Your task to perform on an android device: Open Yahoo.com Image 0: 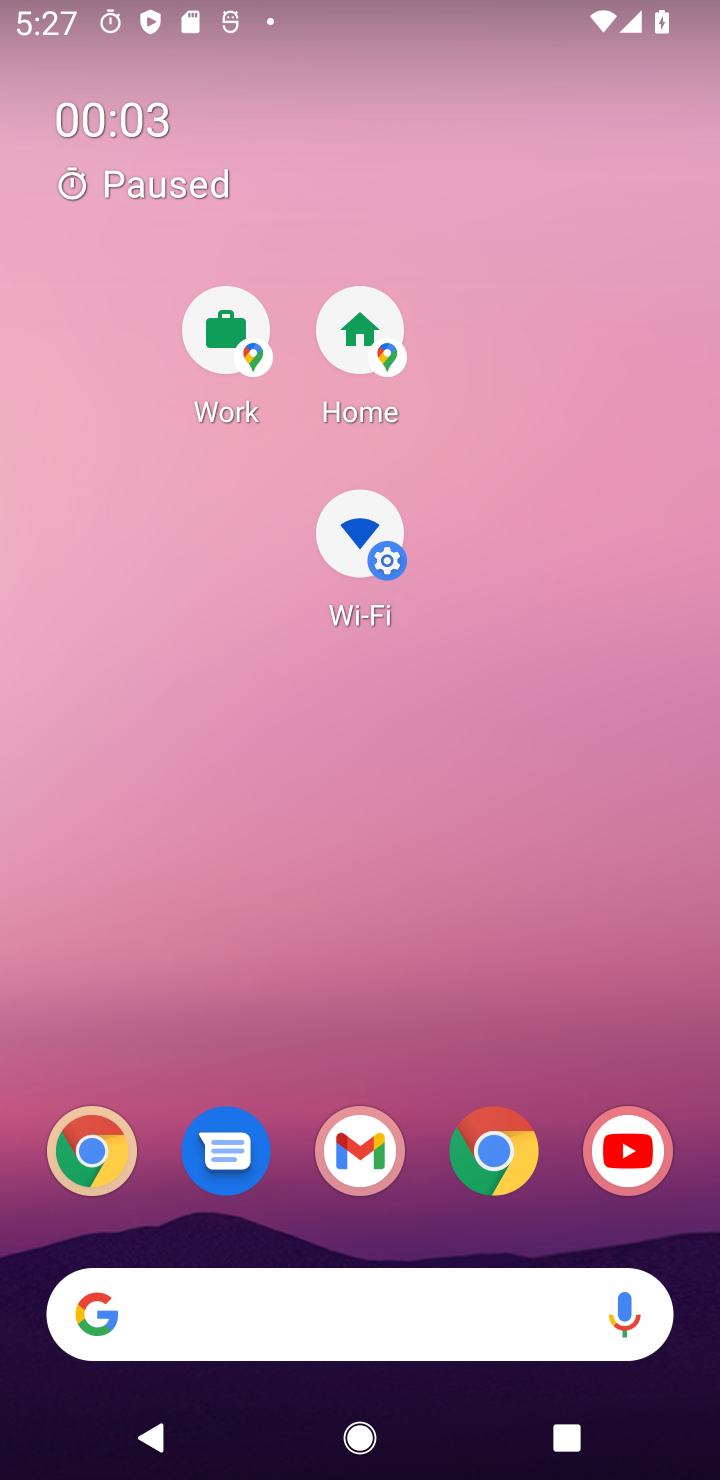
Step 0: drag from (444, 1236) to (334, 396)
Your task to perform on an android device: Open Yahoo.com Image 1: 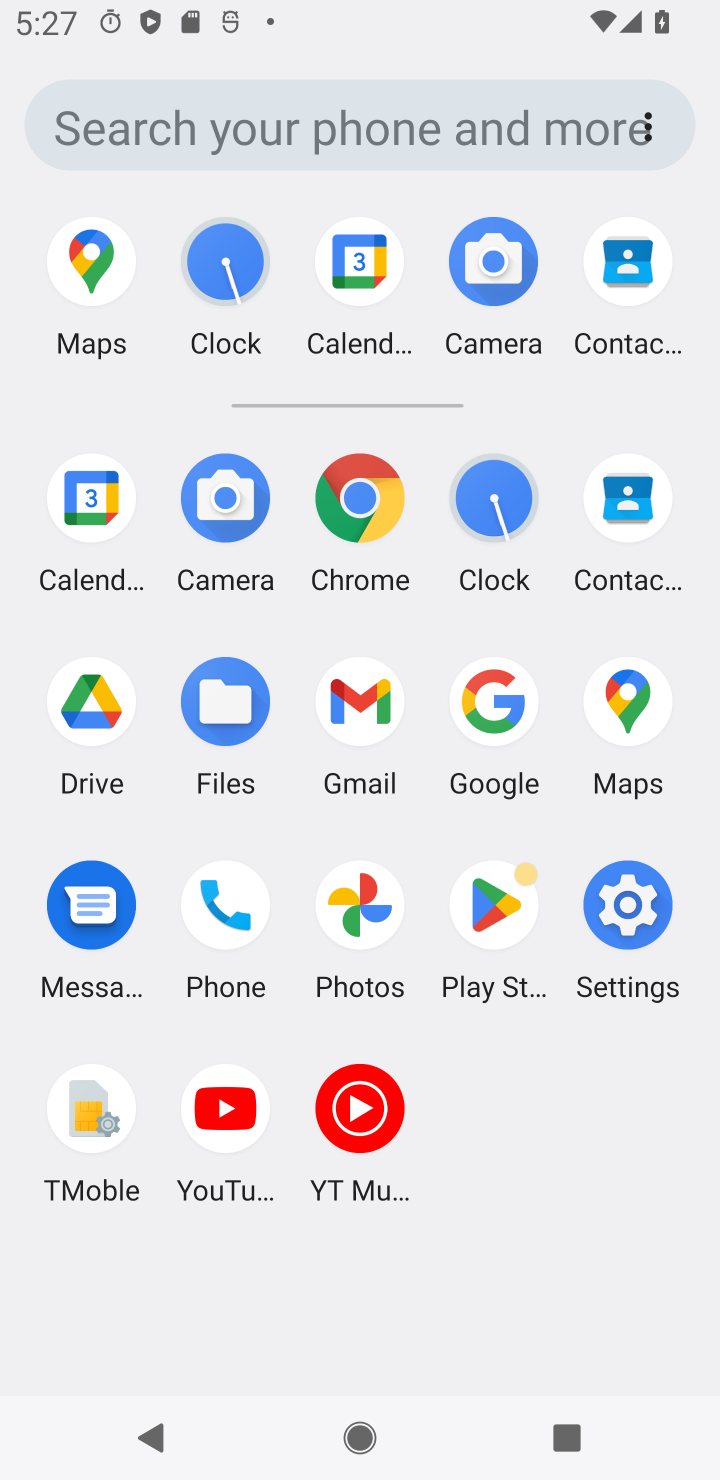
Step 1: drag from (215, 860) to (183, 639)
Your task to perform on an android device: Open Yahoo.com Image 2: 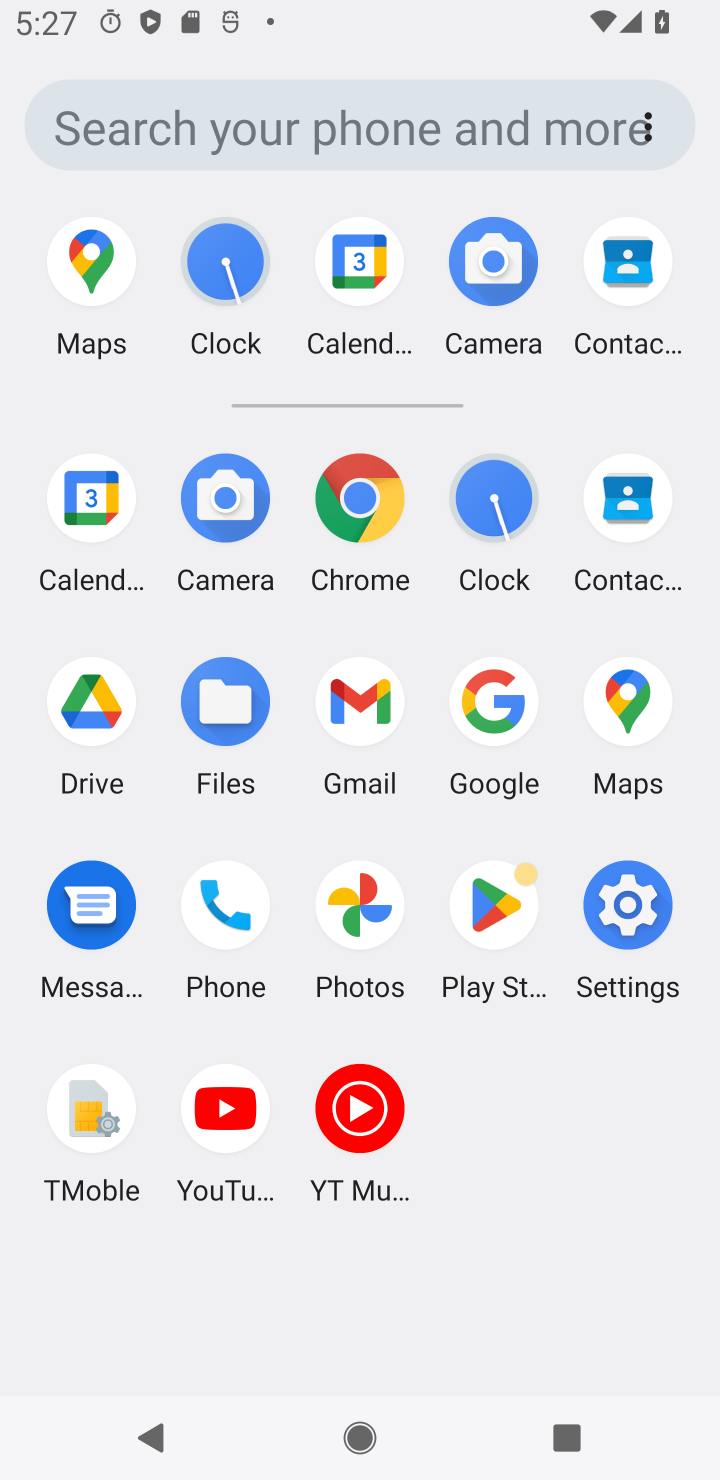
Step 2: click (355, 457)
Your task to perform on an android device: Open Yahoo.com Image 3: 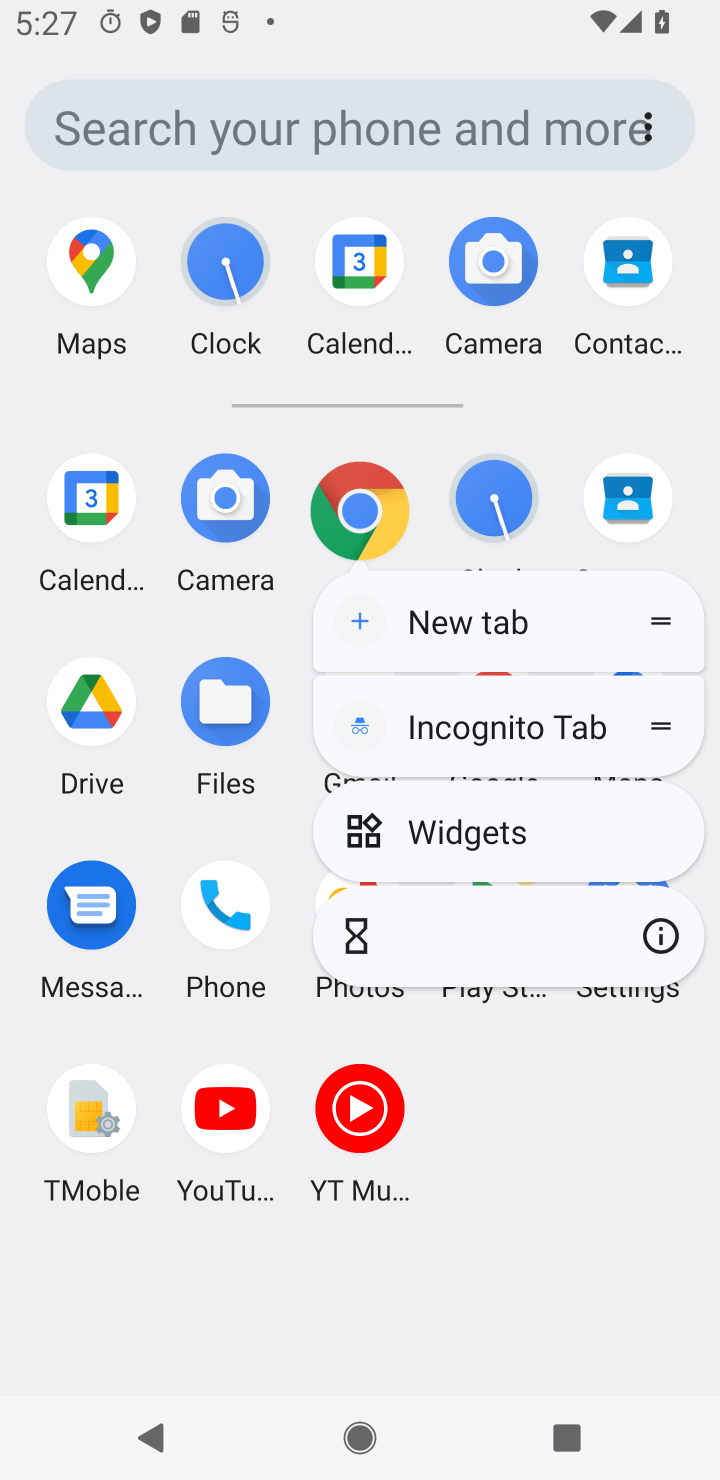
Step 3: click (374, 501)
Your task to perform on an android device: Open Yahoo.com Image 4: 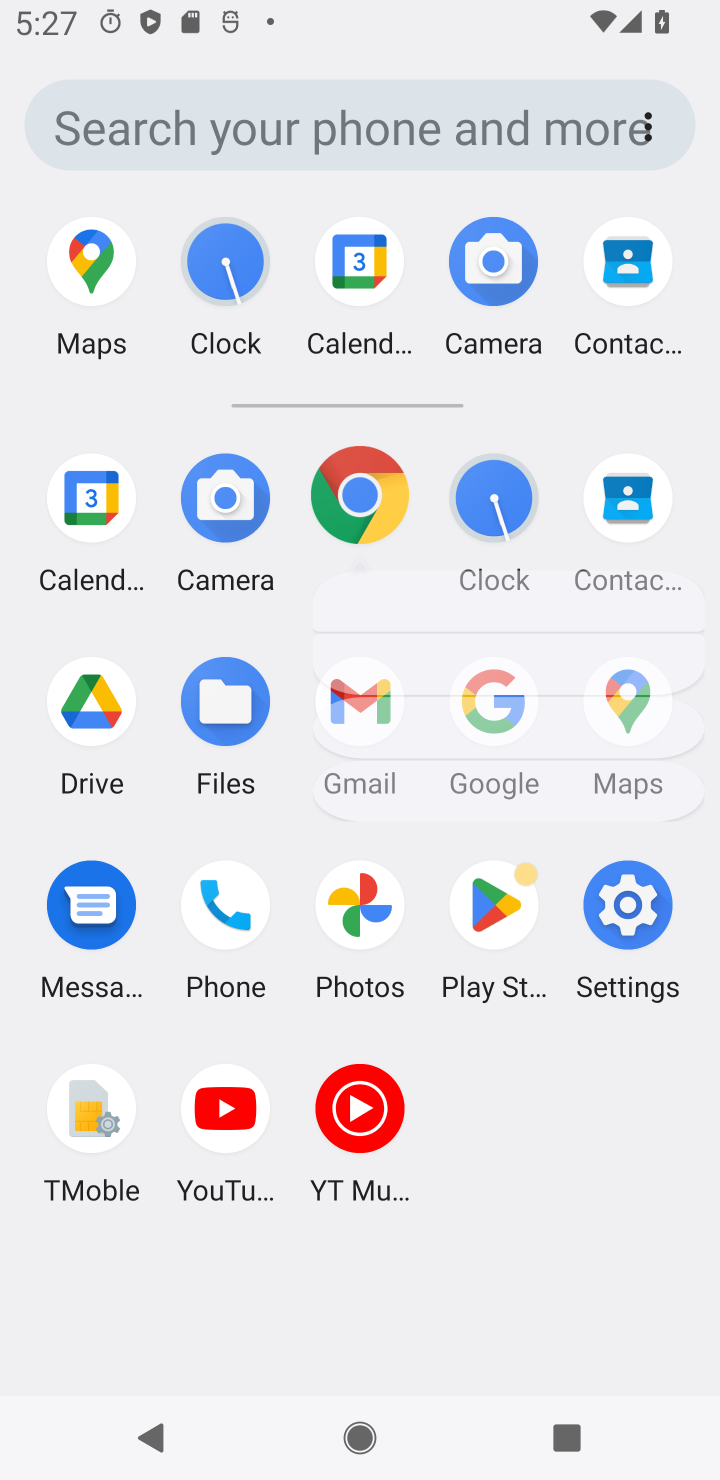
Step 4: click (376, 486)
Your task to perform on an android device: Open Yahoo.com Image 5: 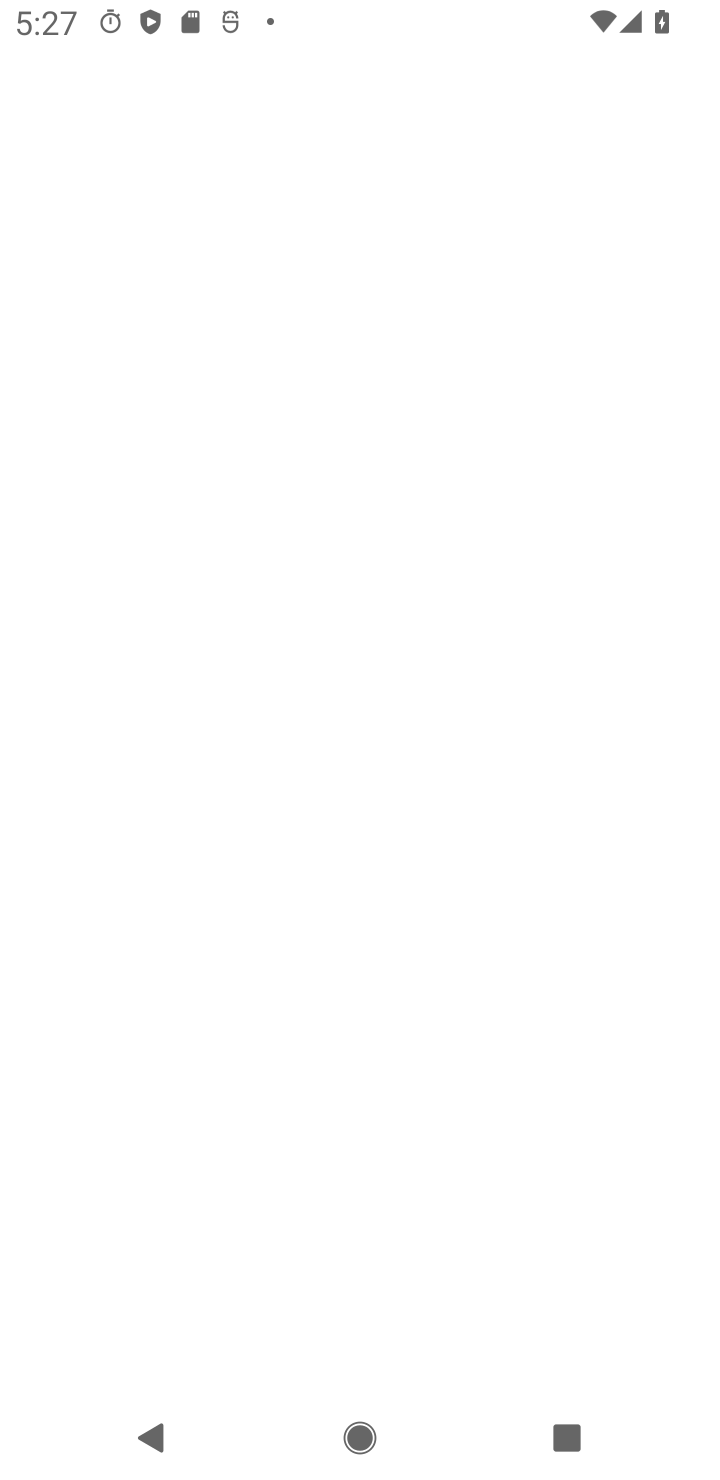
Step 5: click (363, 495)
Your task to perform on an android device: Open Yahoo.com Image 6: 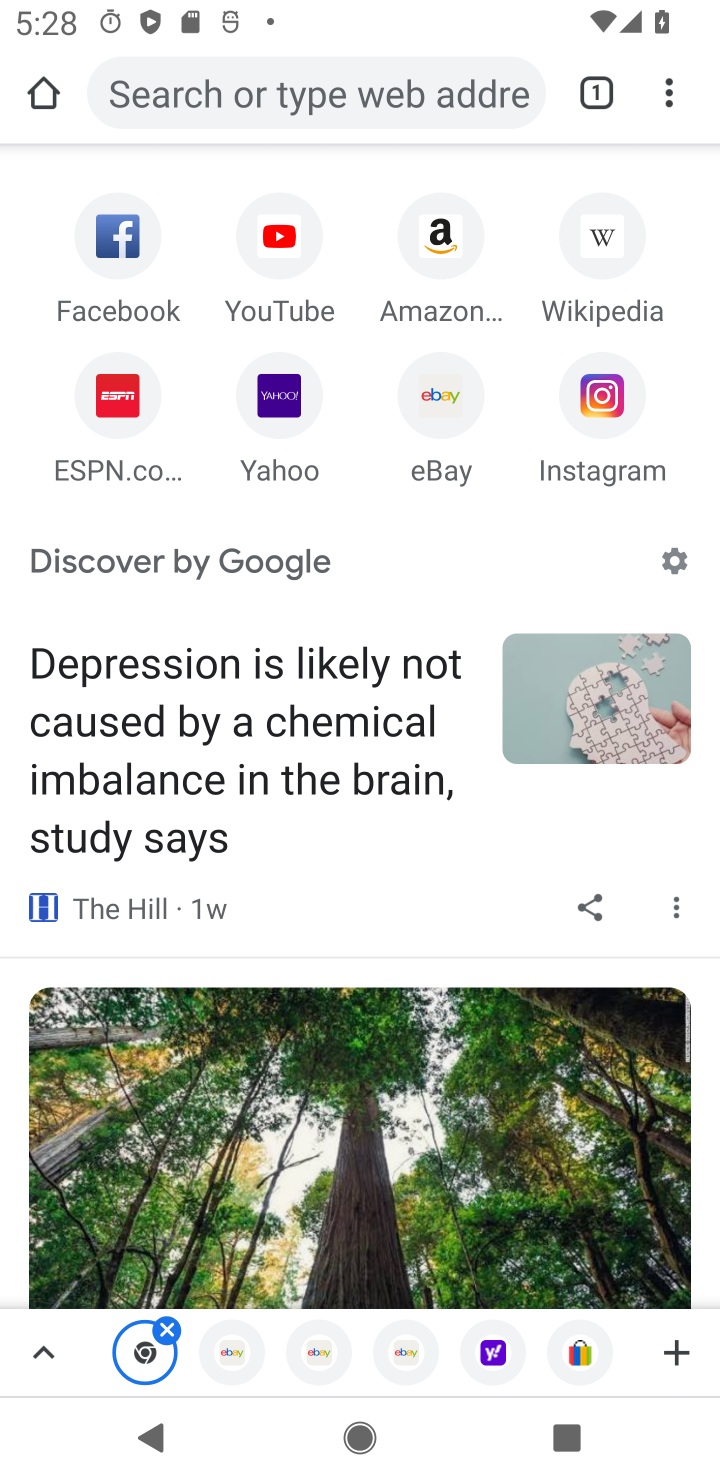
Step 6: click (282, 388)
Your task to perform on an android device: Open Yahoo.com Image 7: 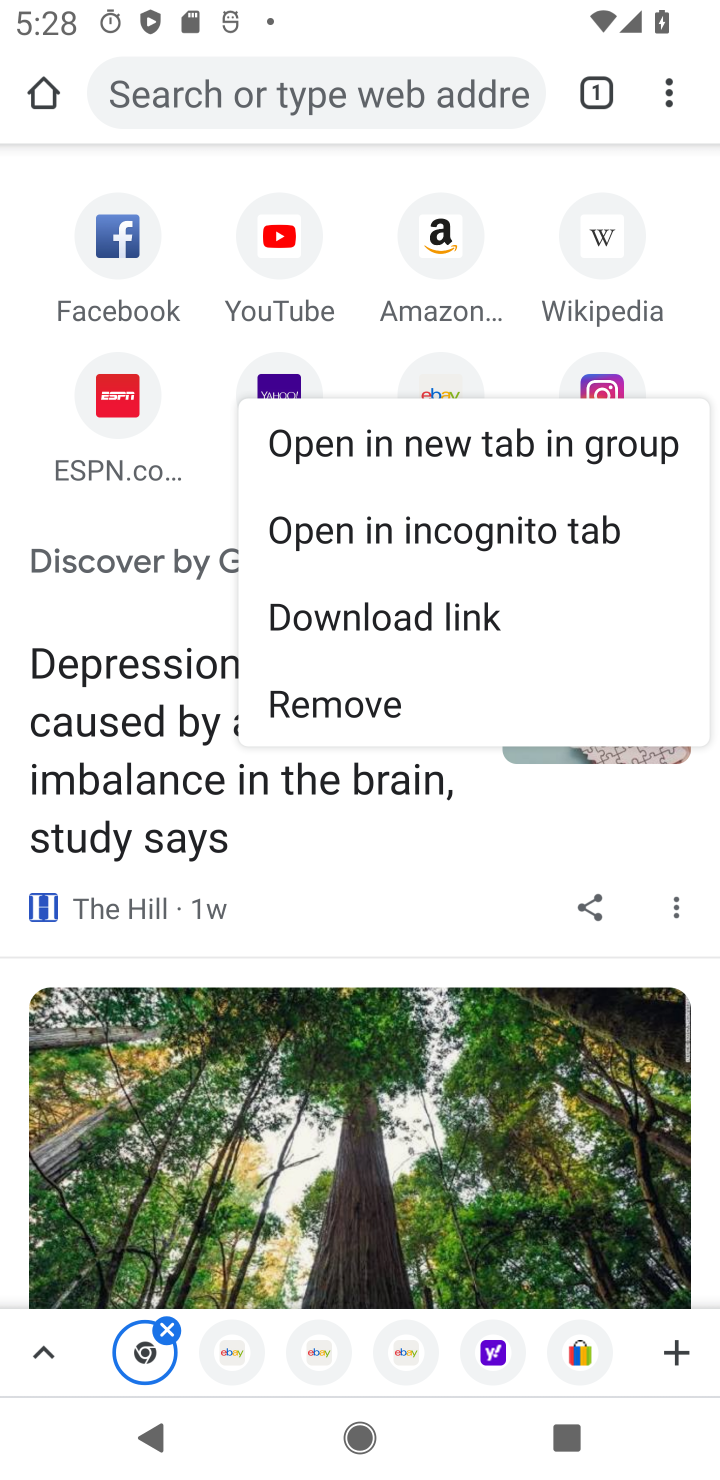
Step 7: click (361, 437)
Your task to perform on an android device: Open Yahoo.com Image 8: 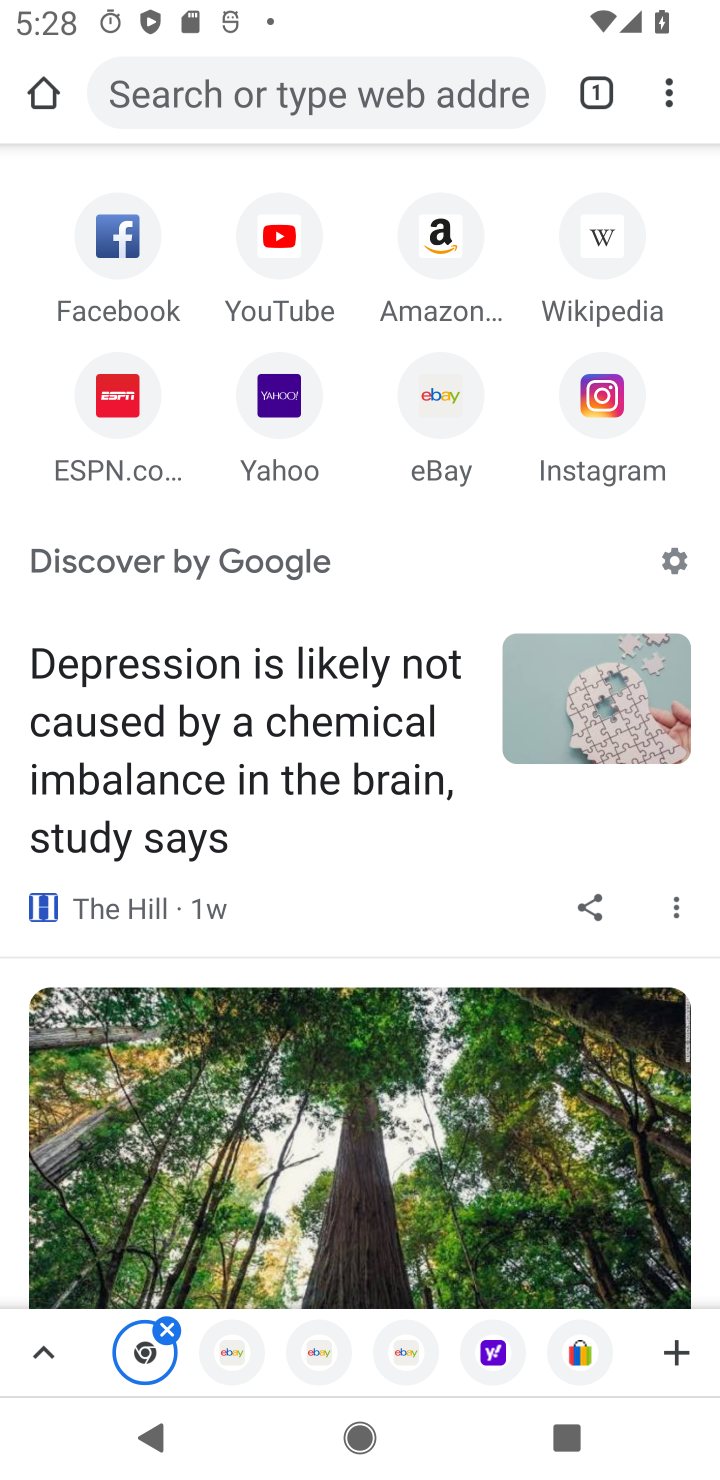
Step 8: click (114, 223)
Your task to perform on an android device: Open Yahoo.com Image 9: 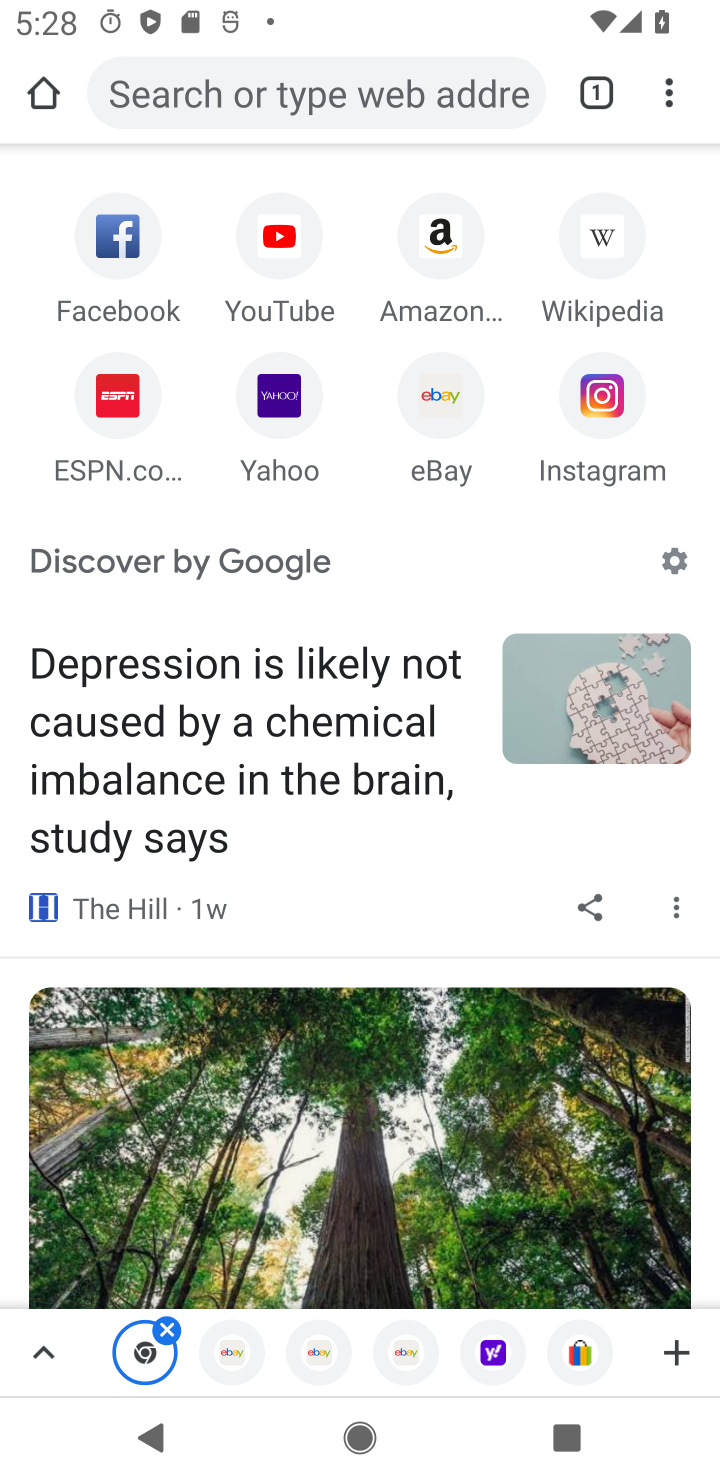
Step 9: click (113, 223)
Your task to perform on an android device: Open Yahoo.com Image 10: 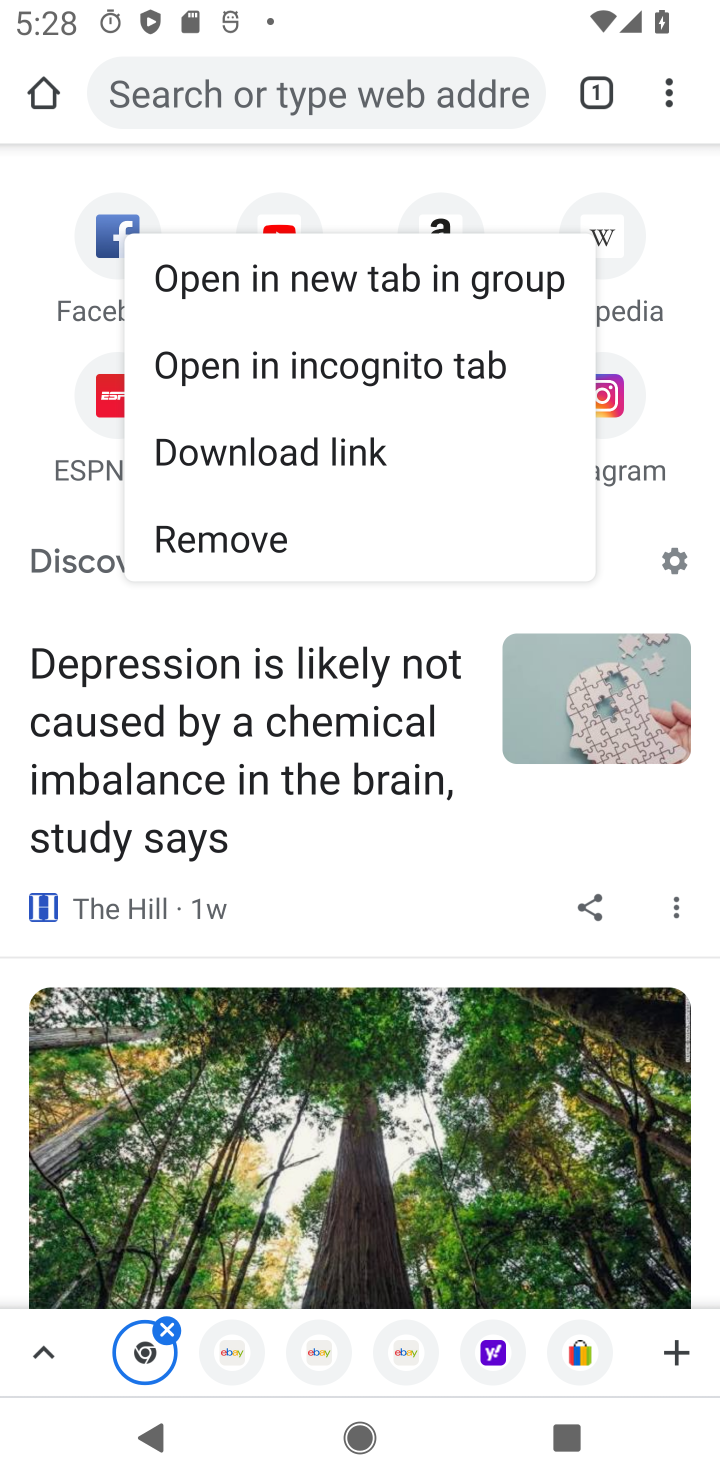
Step 10: click (109, 220)
Your task to perform on an android device: Open Yahoo.com Image 11: 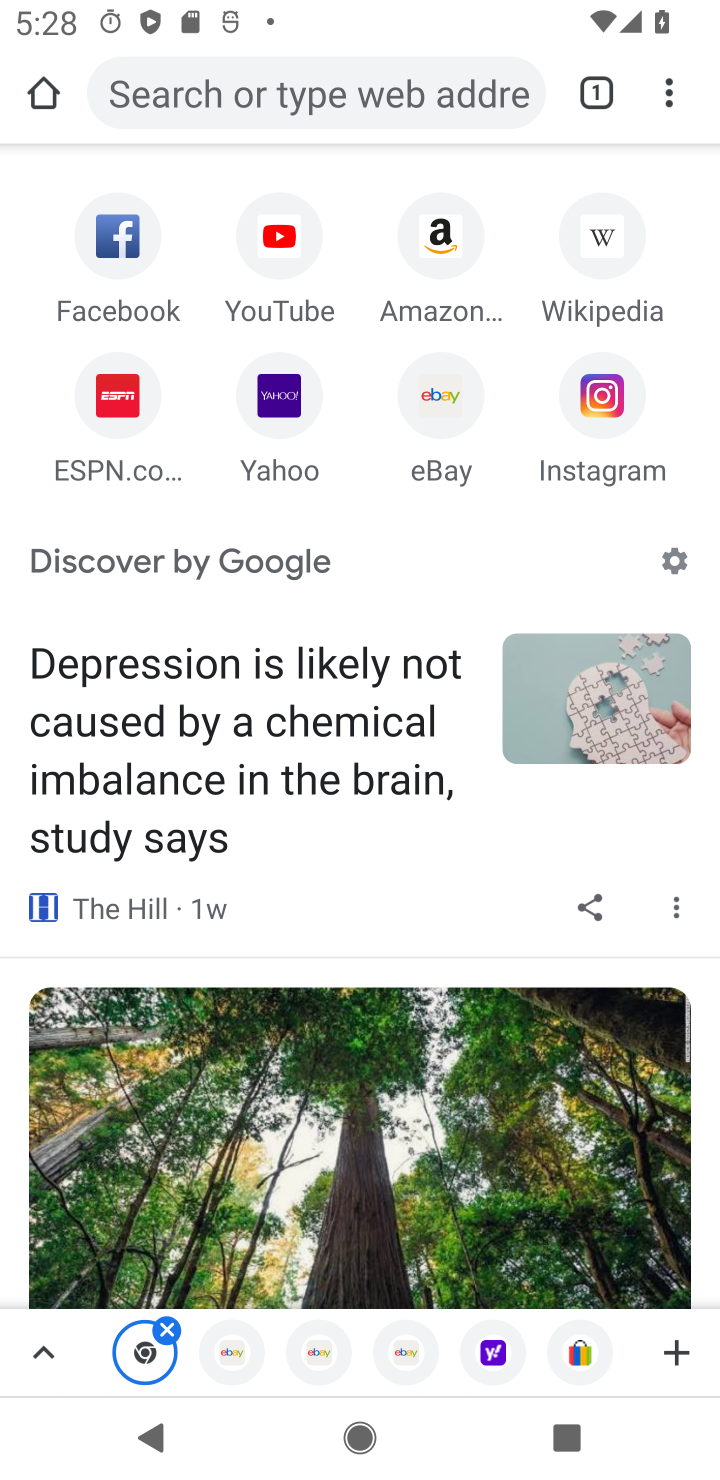
Step 11: click (109, 220)
Your task to perform on an android device: Open Yahoo.com Image 12: 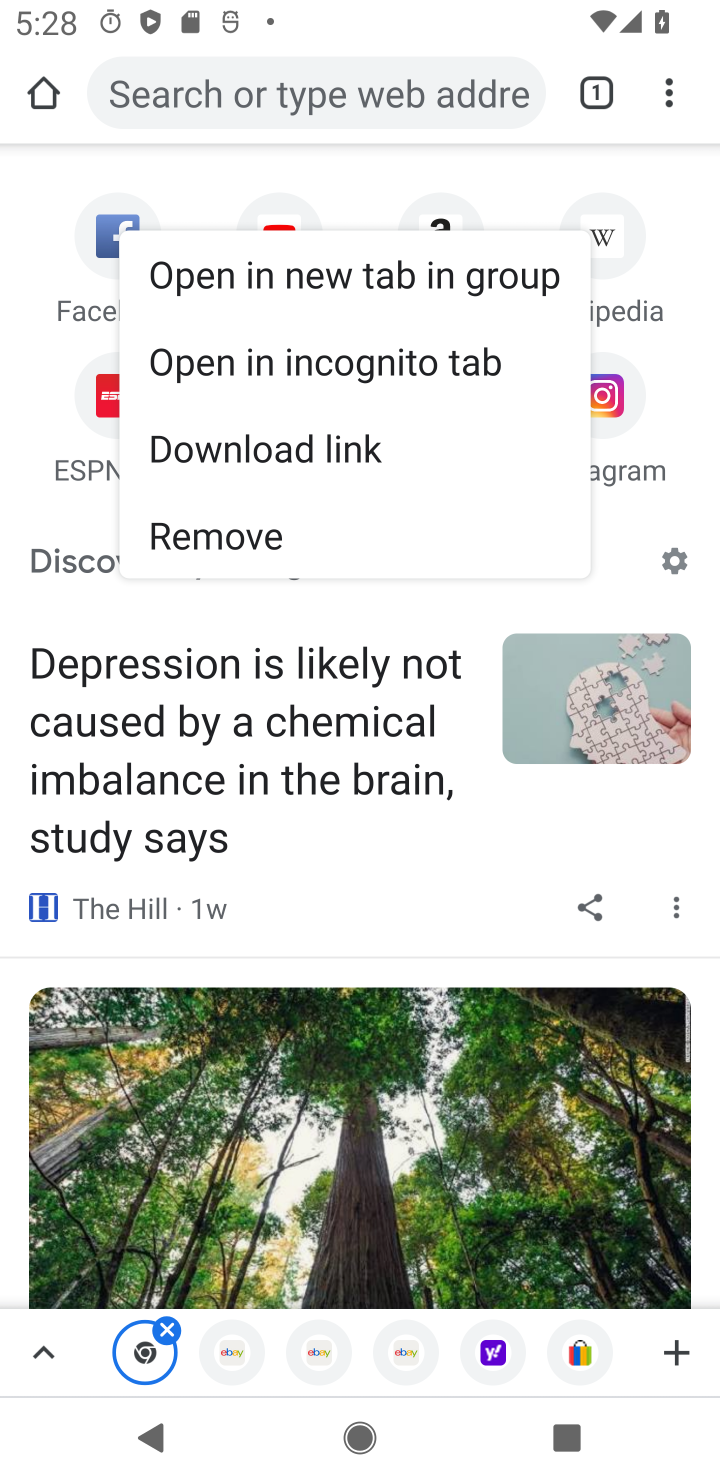
Step 12: click (102, 261)
Your task to perform on an android device: Open Yahoo.com Image 13: 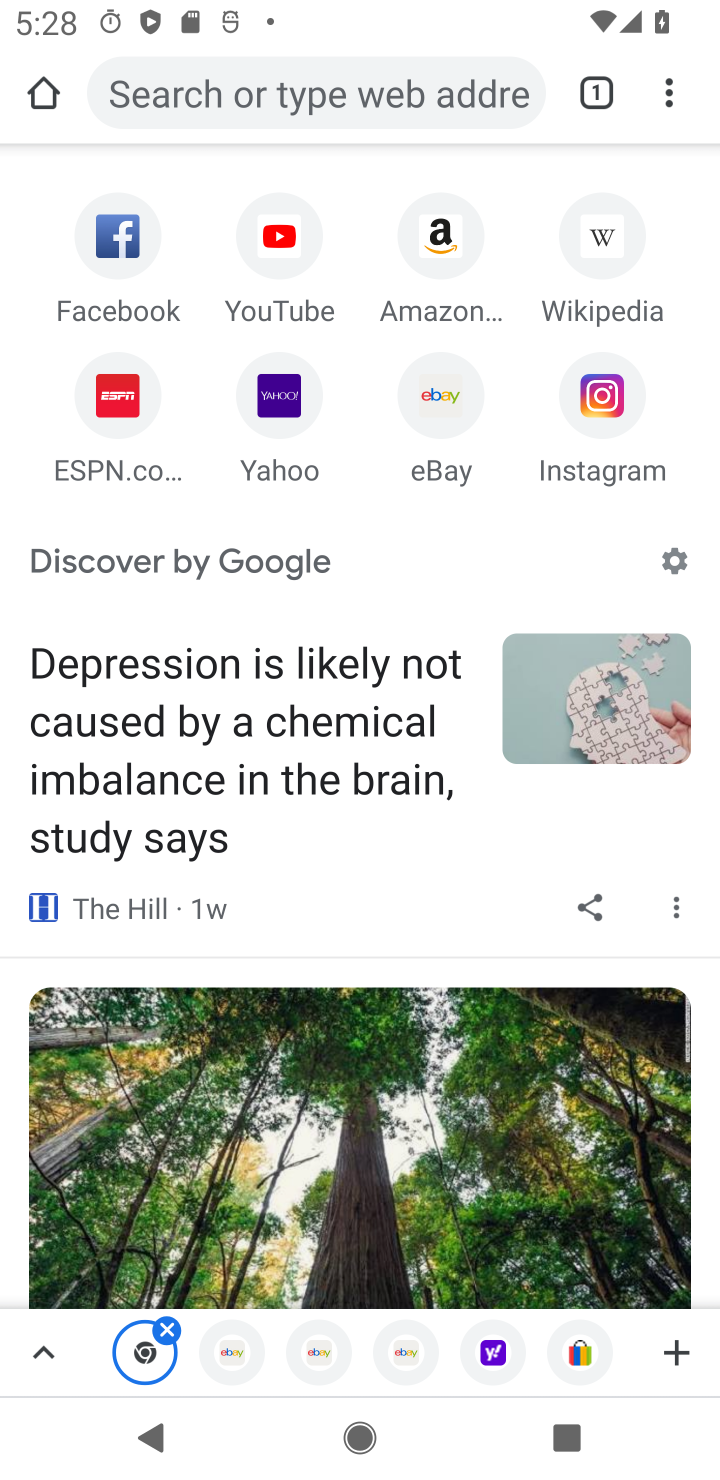
Step 13: task complete